Your task to perform on an android device: Open Google Maps and go to "Timeline" Image 0: 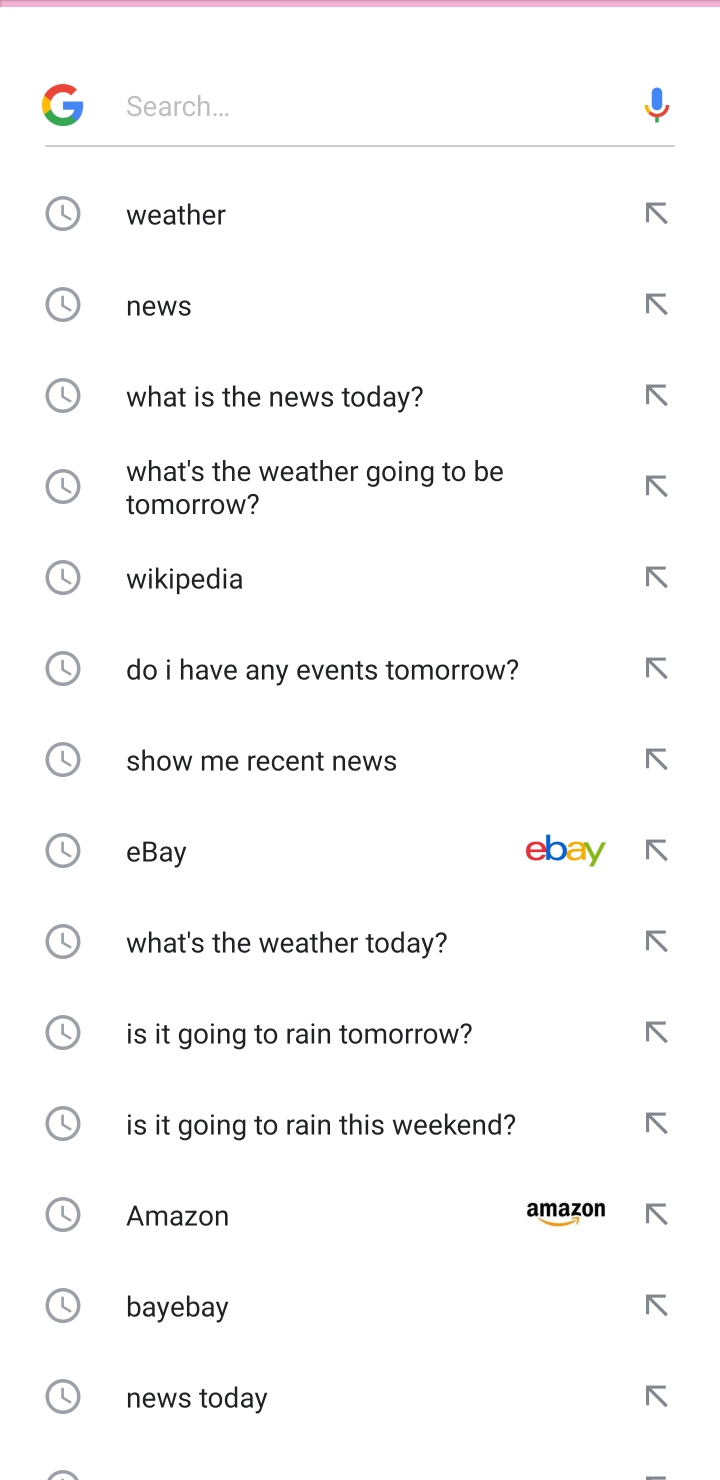
Step 0: press home button
Your task to perform on an android device: Open Google Maps and go to "Timeline" Image 1: 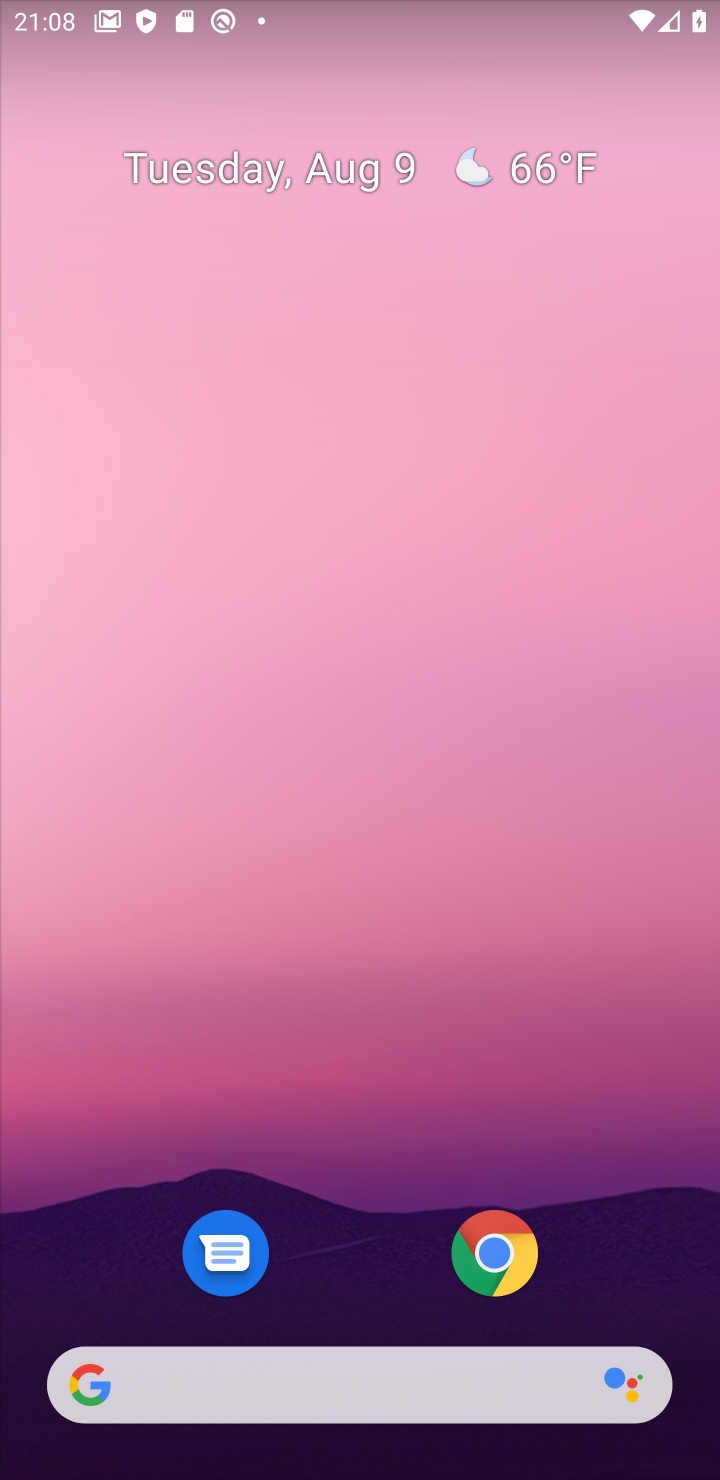
Step 1: drag from (427, 479) to (510, 124)
Your task to perform on an android device: Open Google Maps and go to "Timeline" Image 2: 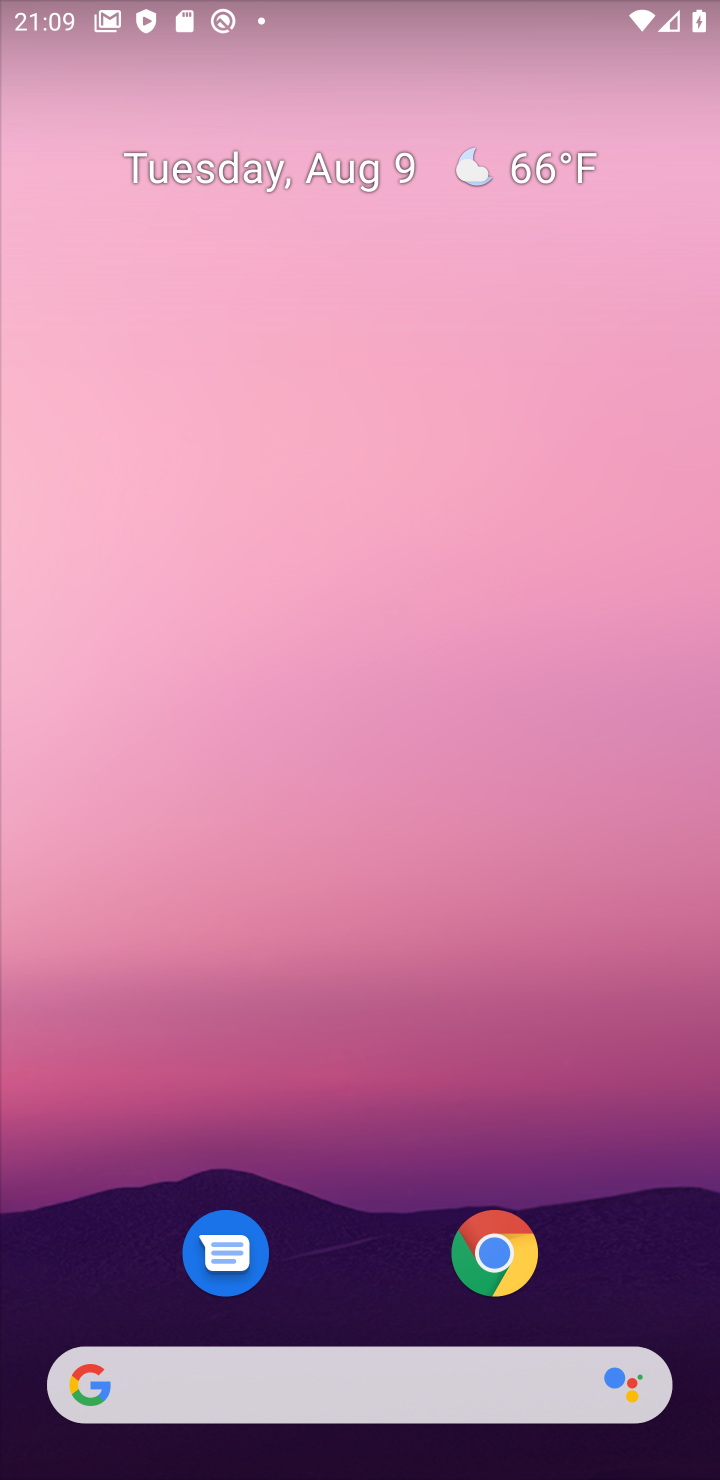
Step 2: drag from (330, 1269) to (416, 287)
Your task to perform on an android device: Open Google Maps and go to "Timeline" Image 3: 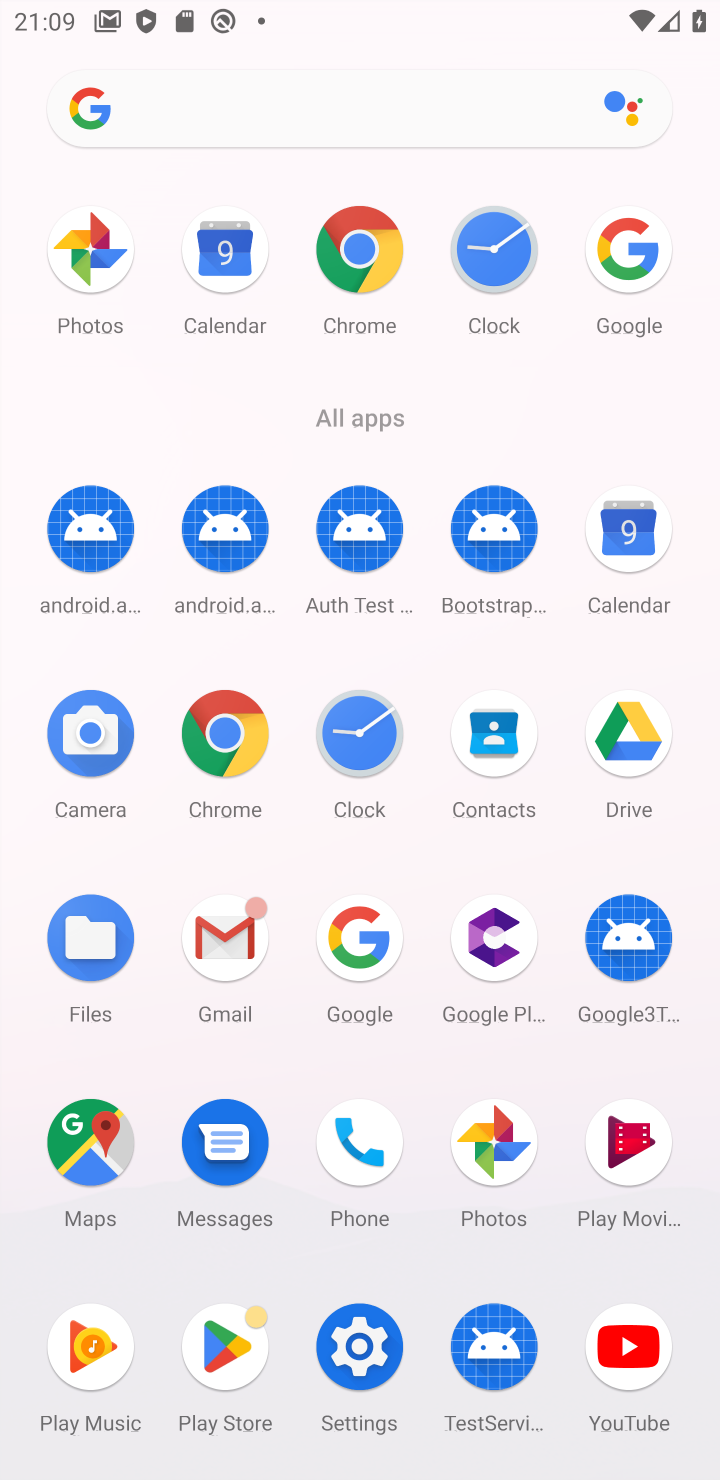
Step 3: click (85, 1141)
Your task to perform on an android device: Open Google Maps and go to "Timeline" Image 4: 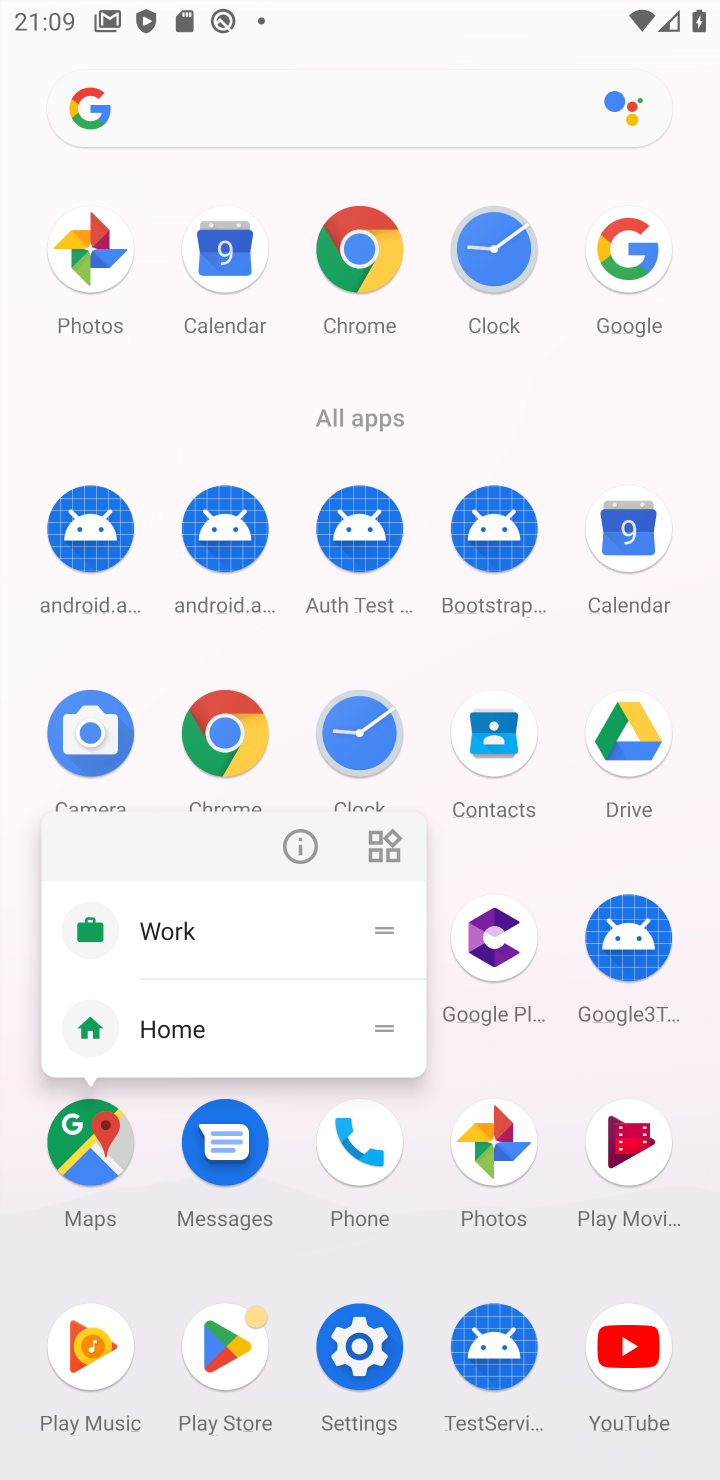
Step 4: click (83, 1157)
Your task to perform on an android device: Open Google Maps and go to "Timeline" Image 5: 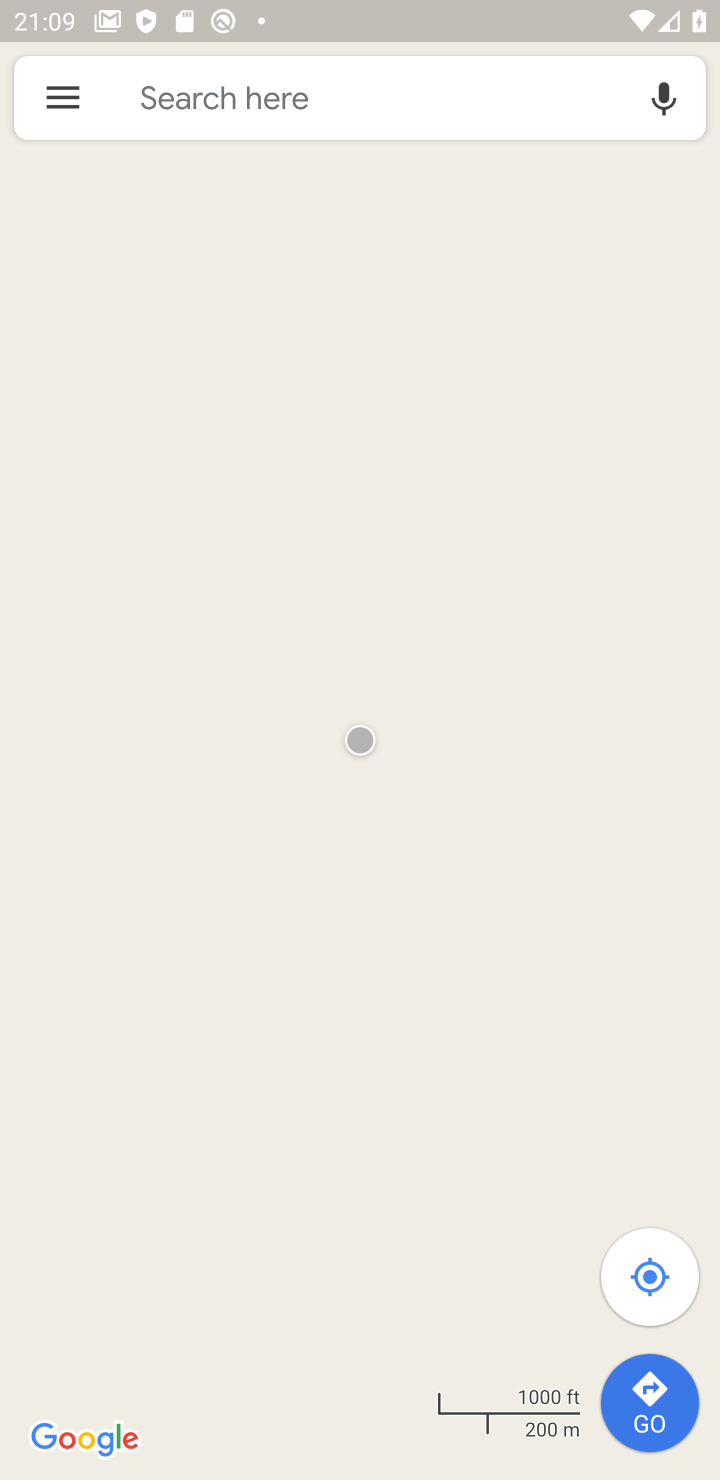
Step 5: click (40, 81)
Your task to perform on an android device: Open Google Maps and go to "Timeline" Image 6: 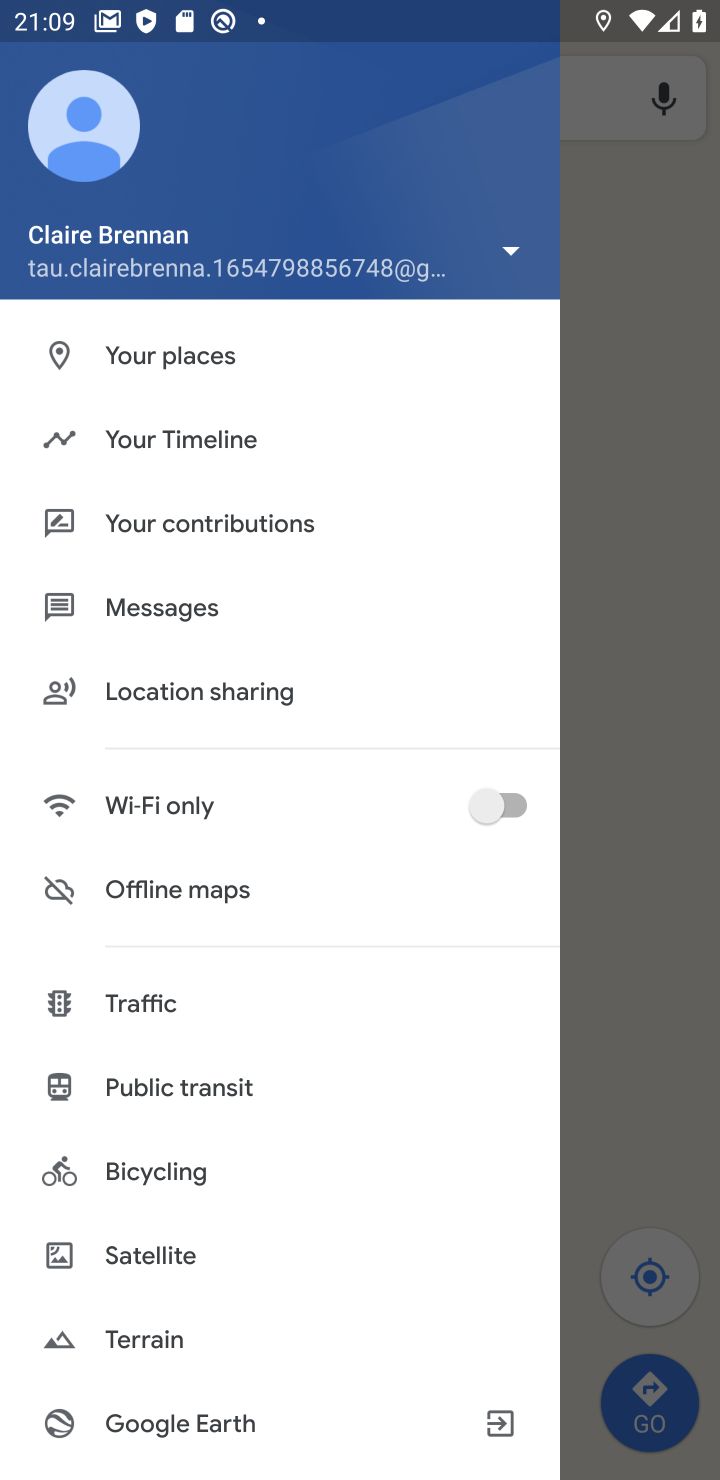
Step 6: click (189, 451)
Your task to perform on an android device: Open Google Maps and go to "Timeline" Image 7: 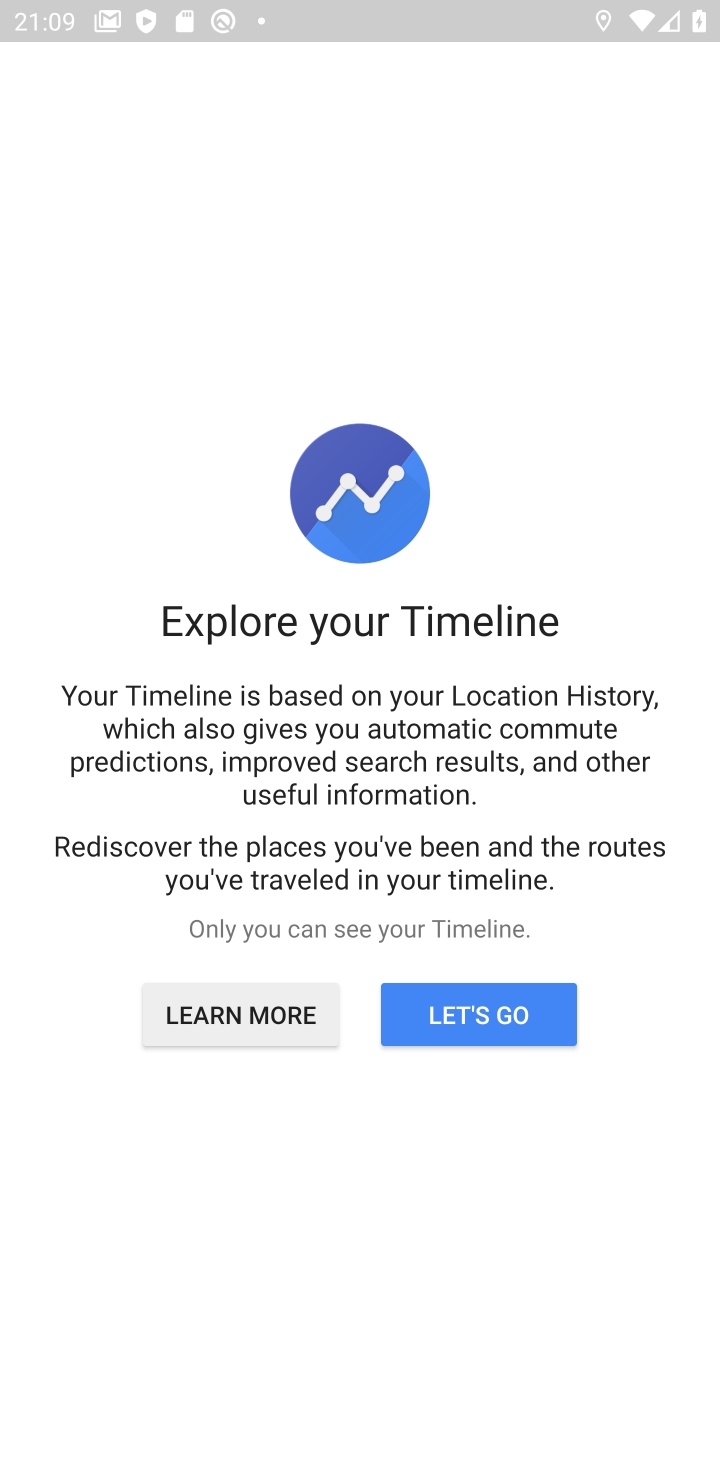
Step 7: click (462, 1029)
Your task to perform on an android device: Open Google Maps and go to "Timeline" Image 8: 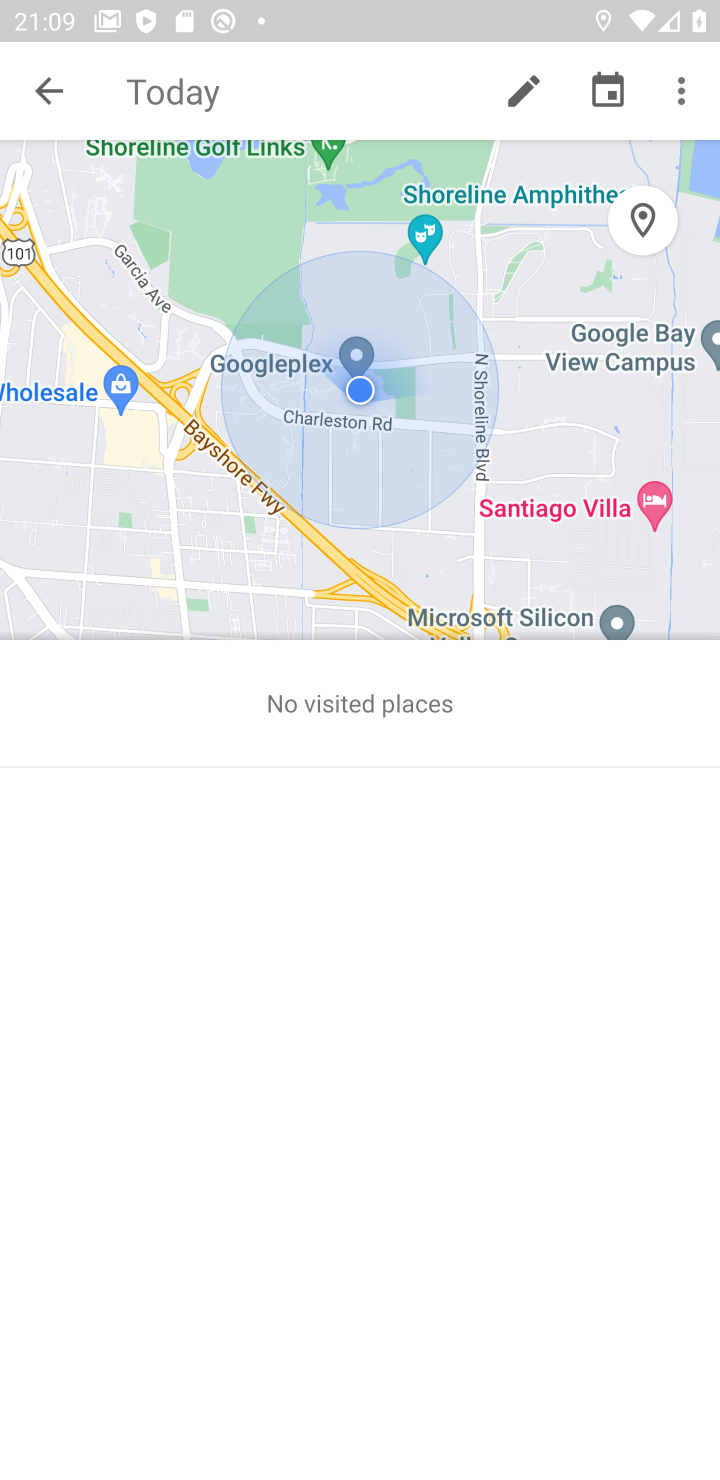
Step 8: task complete